Your task to perform on an android device: Search for Italian restaurants on Maps Image 0: 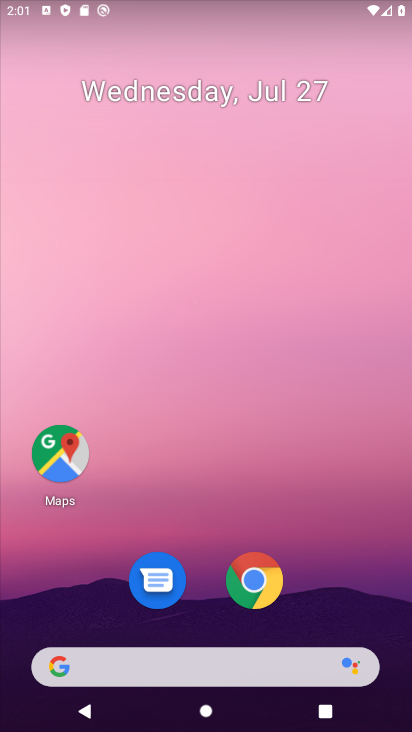
Step 0: click (143, 419)
Your task to perform on an android device: Search for Italian restaurants on Maps Image 1: 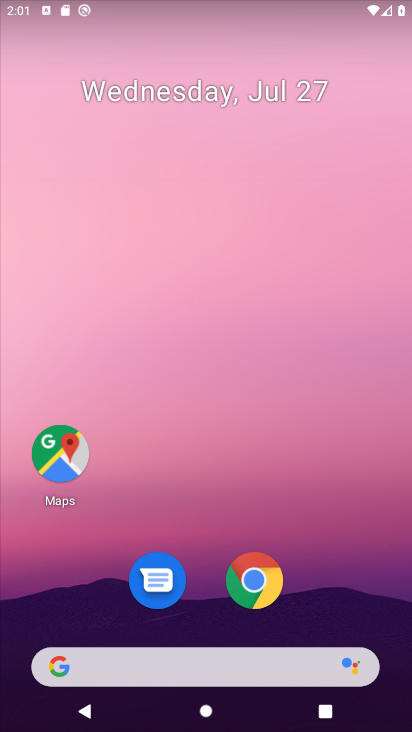
Step 1: click (79, 456)
Your task to perform on an android device: Search for Italian restaurants on Maps Image 2: 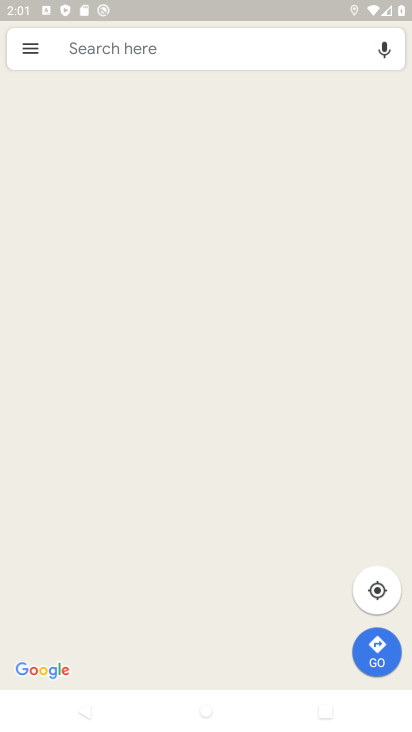
Step 2: click (173, 42)
Your task to perform on an android device: Search for Italian restaurants on Maps Image 3: 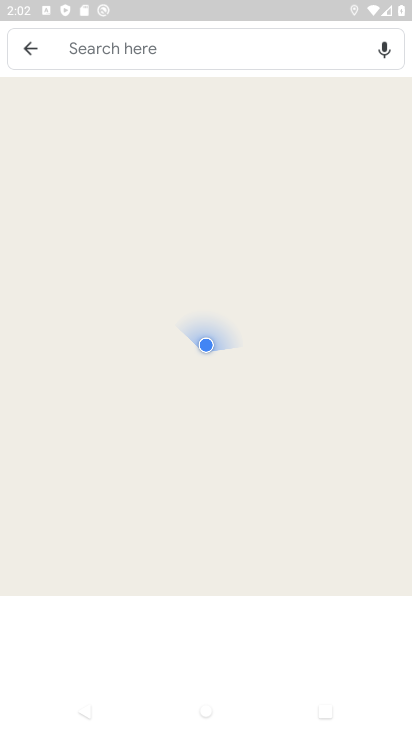
Step 3: click (173, 42)
Your task to perform on an android device: Search for Italian restaurants on Maps Image 4: 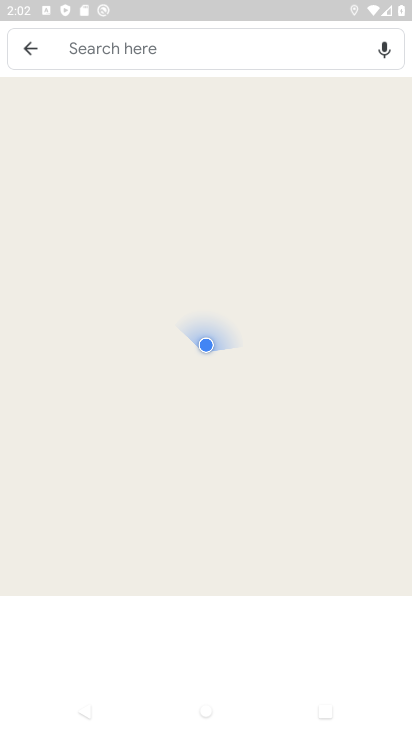
Step 4: click (103, 49)
Your task to perform on an android device: Search for Italian restaurants on Maps Image 5: 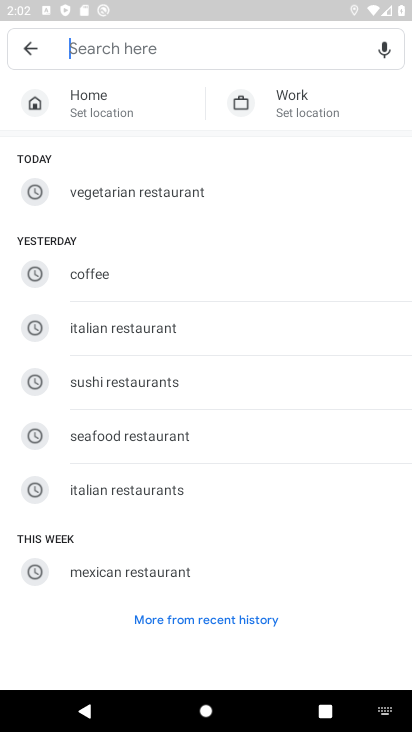
Step 5: click (170, 336)
Your task to perform on an android device: Search for Italian restaurants on Maps Image 6: 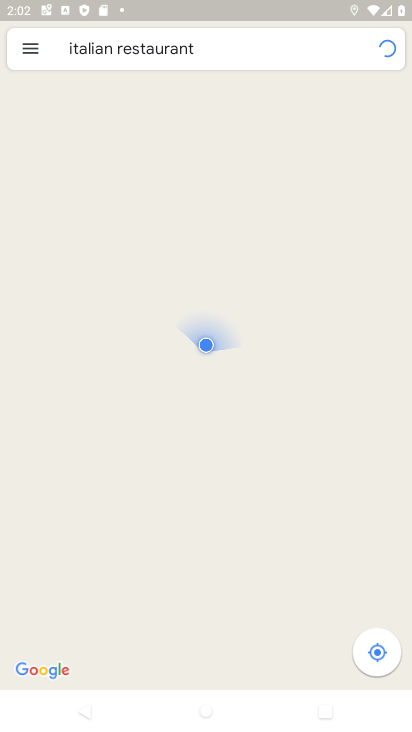
Step 6: task complete